Your task to perform on an android device: Open Yahoo.com Image 0: 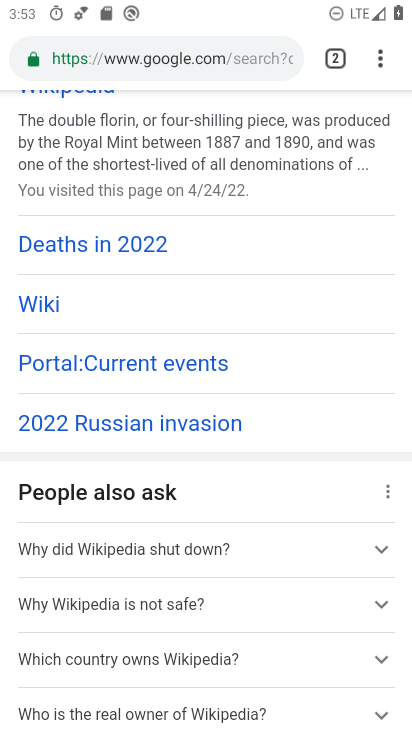
Step 0: click (231, 55)
Your task to perform on an android device: Open Yahoo.com Image 1: 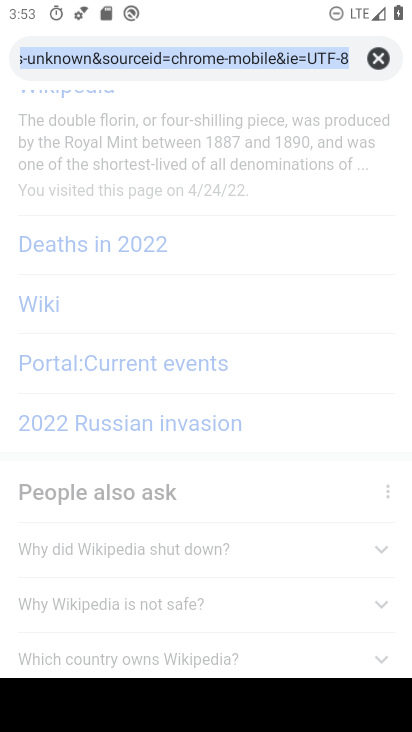
Step 1: type "yahoo.com"
Your task to perform on an android device: Open Yahoo.com Image 2: 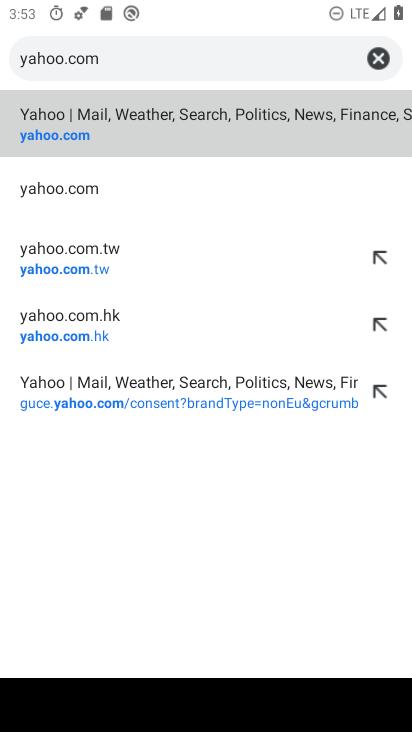
Step 2: click (89, 182)
Your task to perform on an android device: Open Yahoo.com Image 3: 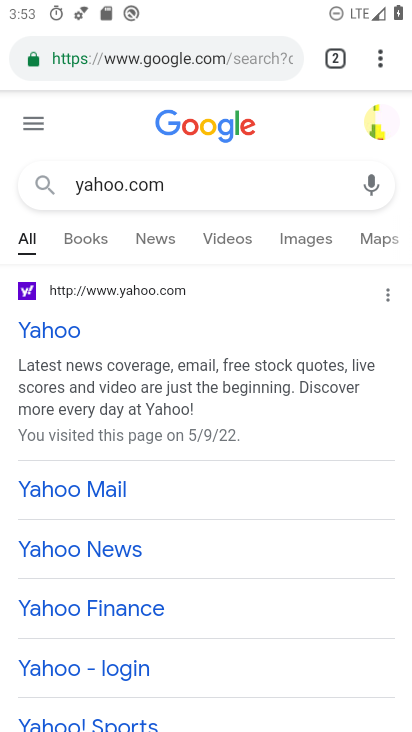
Step 3: task complete